Your task to perform on an android device: change the clock display to analog Image 0: 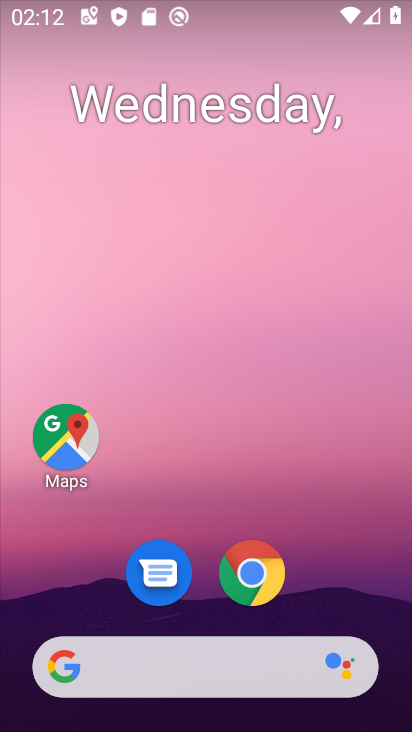
Step 0: drag from (335, 584) to (290, 99)
Your task to perform on an android device: change the clock display to analog Image 1: 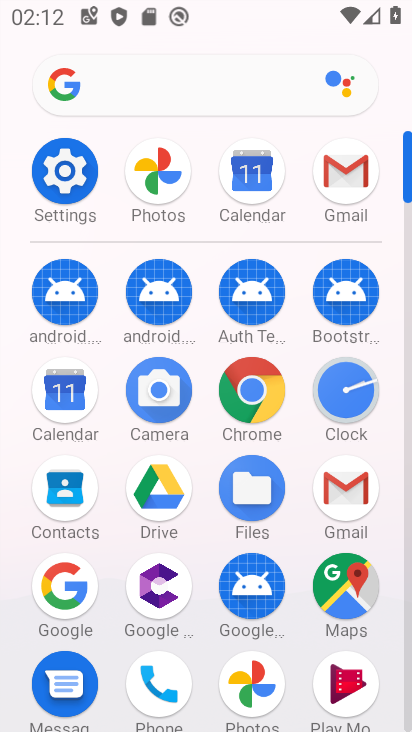
Step 1: click (339, 392)
Your task to perform on an android device: change the clock display to analog Image 2: 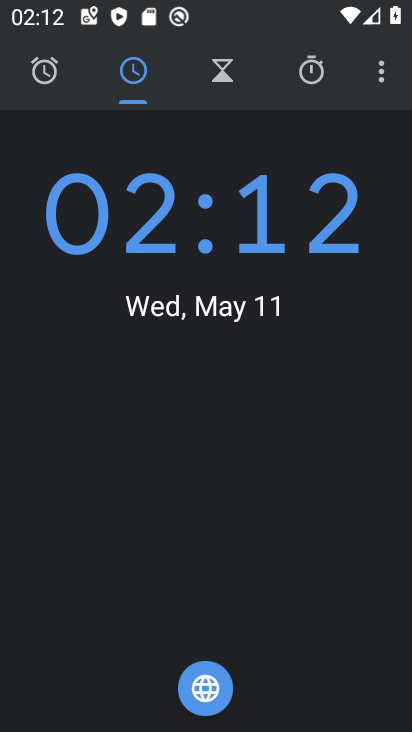
Step 2: click (384, 72)
Your task to perform on an android device: change the clock display to analog Image 3: 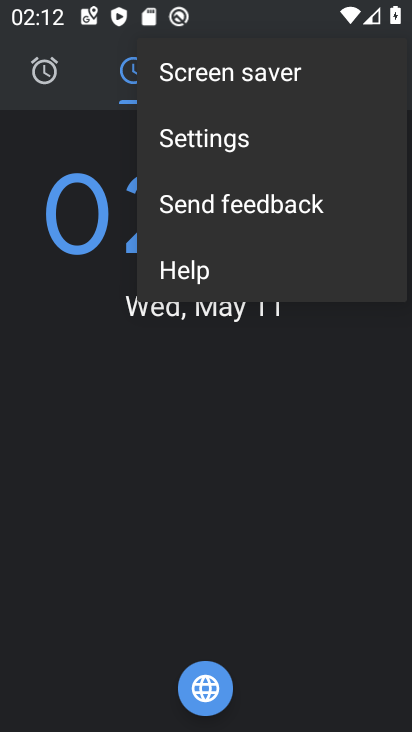
Step 3: click (252, 138)
Your task to perform on an android device: change the clock display to analog Image 4: 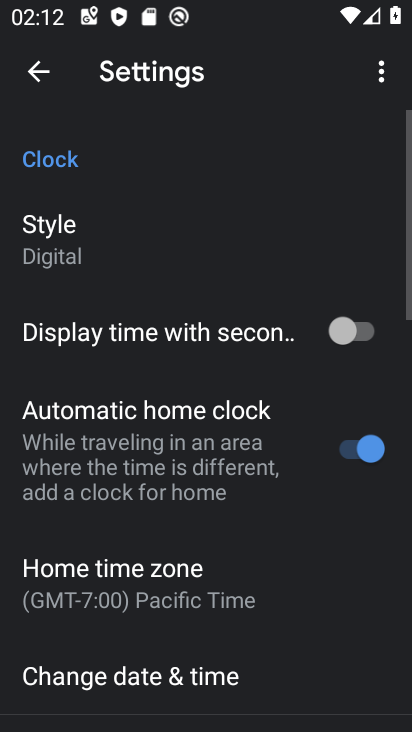
Step 4: click (65, 244)
Your task to perform on an android device: change the clock display to analog Image 5: 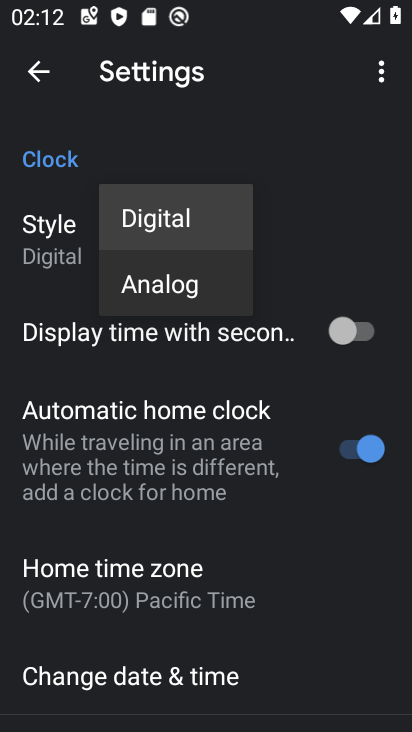
Step 5: click (146, 287)
Your task to perform on an android device: change the clock display to analog Image 6: 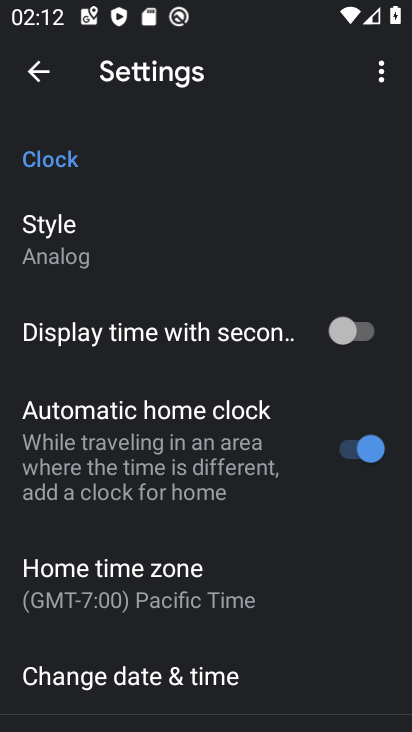
Step 6: task complete